Your task to perform on an android device: Open wifi settings Image 0: 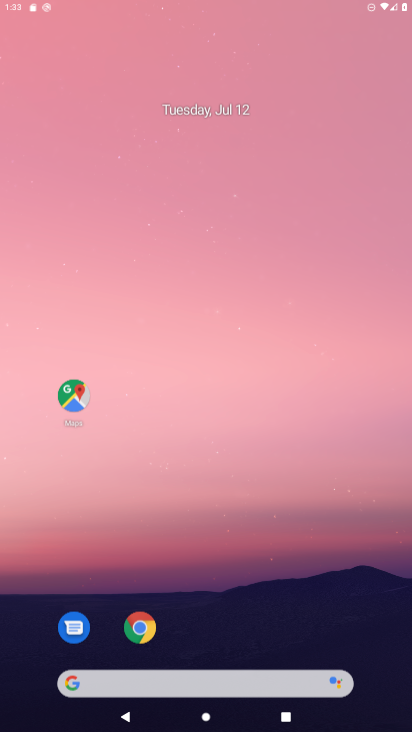
Step 0: press home button
Your task to perform on an android device: Open wifi settings Image 1: 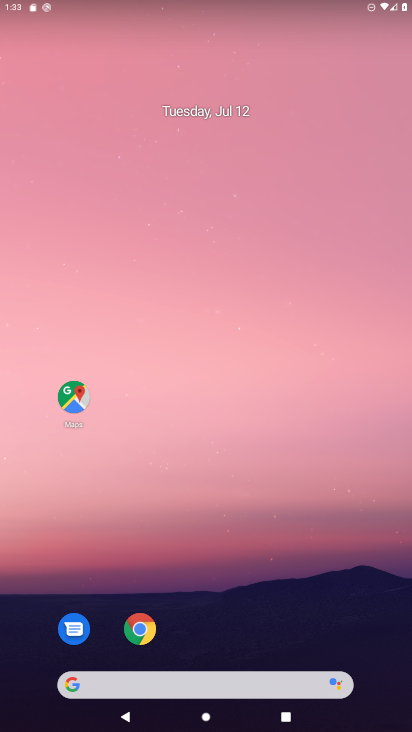
Step 1: drag from (218, 649) to (265, 82)
Your task to perform on an android device: Open wifi settings Image 2: 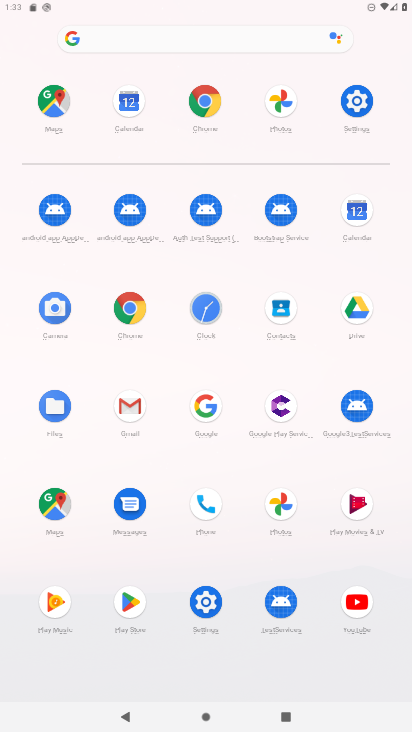
Step 2: click (356, 98)
Your task to perform on an android device: Open wifi settings Image 3: 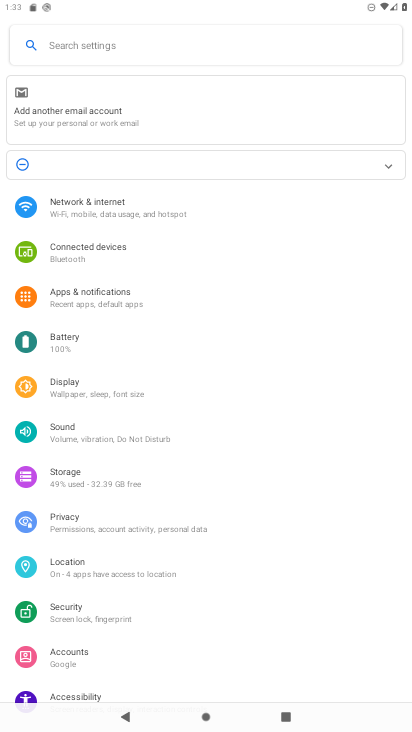
Step 3: click (138, 196)
Your task to perform on an android device: Open wifi settings Image 4: 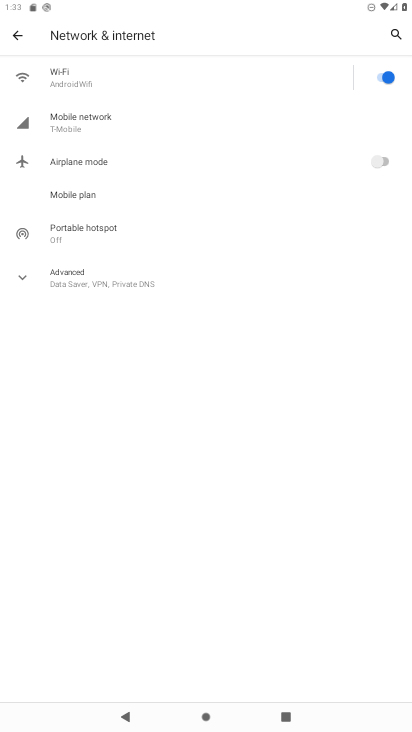
Step 4: click (25, 274)
Your task to perform on an android device: Open wifi settings Image 5: 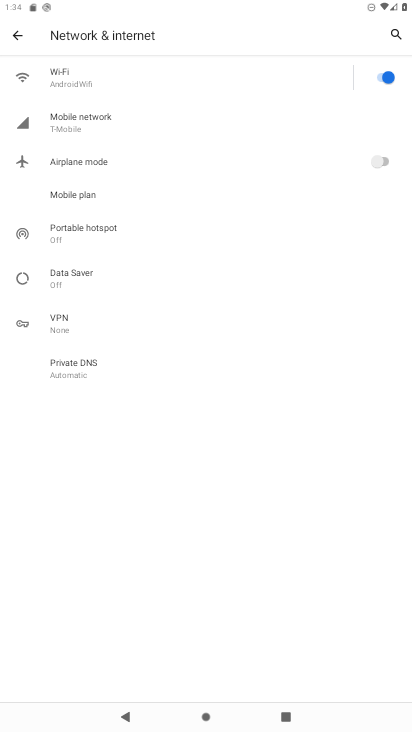
Step 5: task complete